Your task to perform on an android device: turn on location history Image 0: 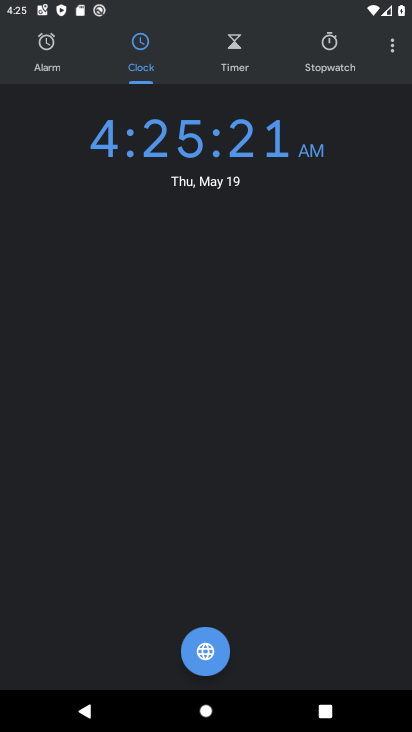
Step 0: press home button
Your task to perform on an android device: turn on location history Image 1: 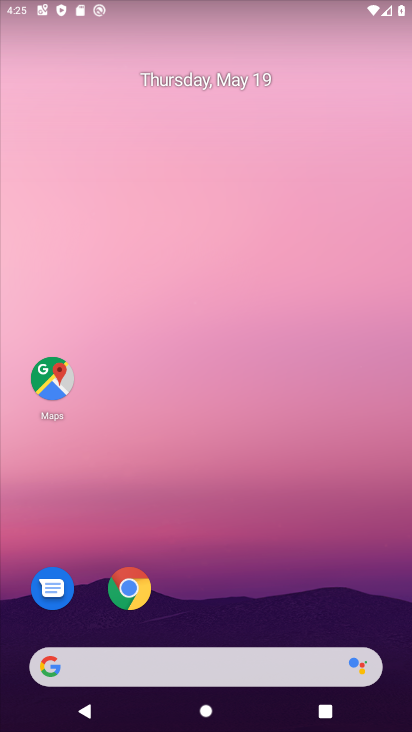
Step 1: drag from (192, 622) to (256, 88)
Your task to perform on an android device: turn on location history Image 2: 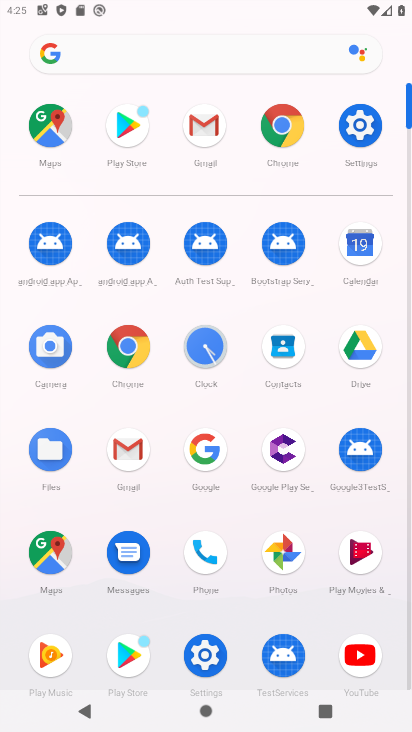
Step 2: click (221, 656)
Your task to perform on an android device: turn on location history Image 3: 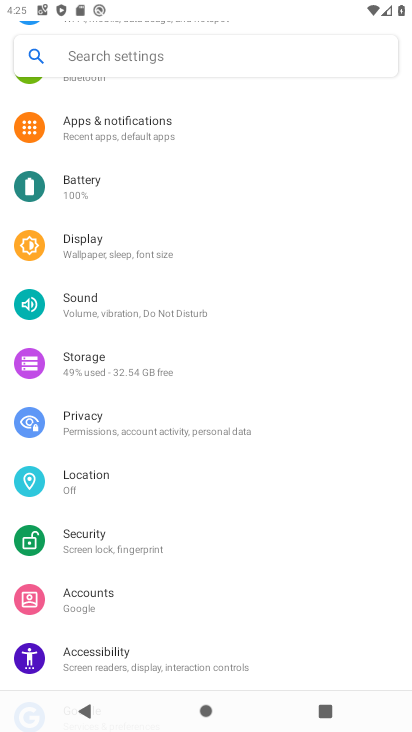
Step 3: click (115, 504)
Your task to perform on an android device: turn on location history Image 4: 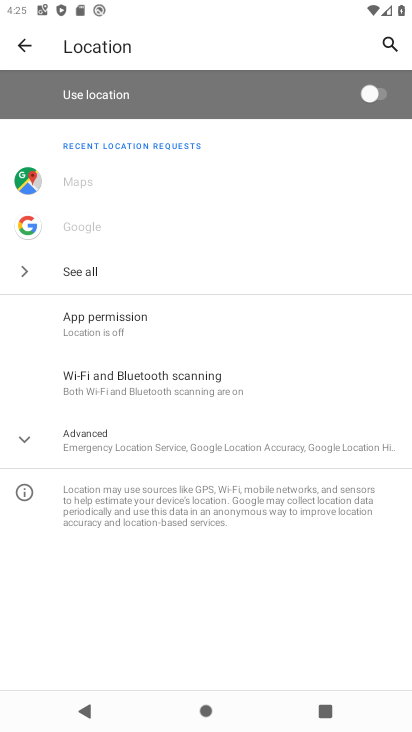
Step 4: click (123, 445)
Your task to perform on an android device: turn on location history Image 5: 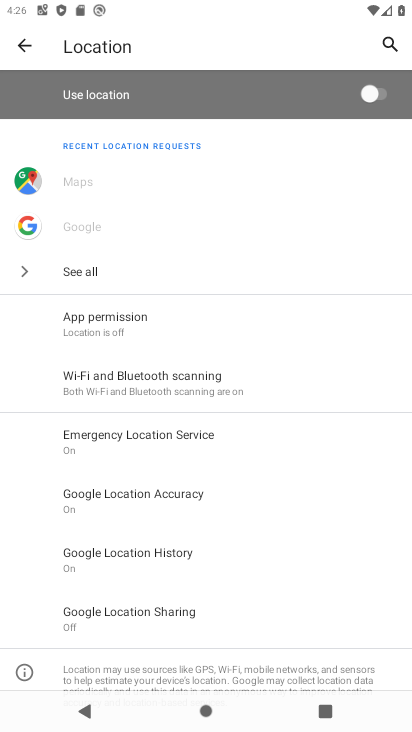
Step 5: click (160, 558)
Your task to perform on an android device: turn on location history Image 6: 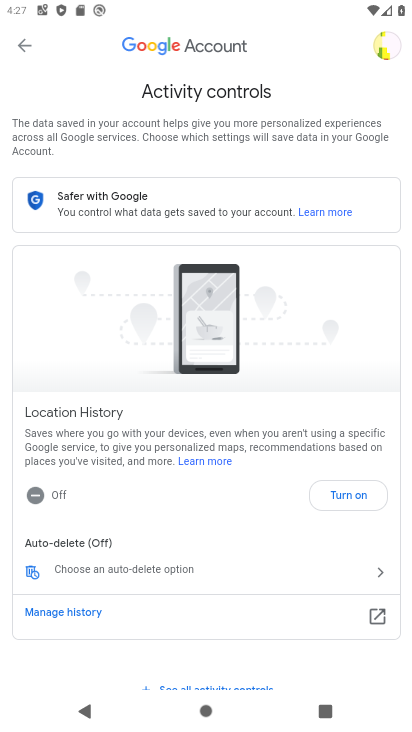
Step 6: drag from (200, 647) to (238, 544)
Your task to perform on an android device: turn on location history Image 7: 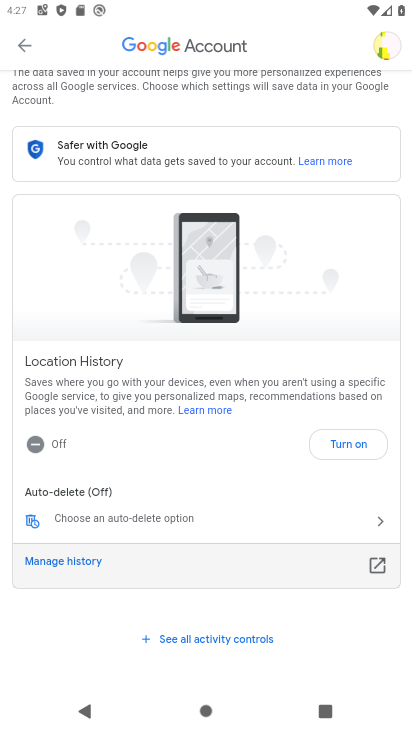
Step 7: click (351, 455)
Your task to perform on an android device: turn on location history Image 8: 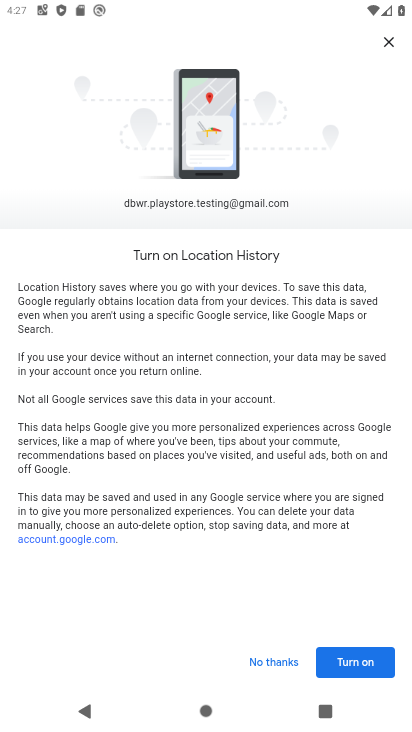
Step 8: click (376, 665)
Your task to perform on an android device: turn on location history Image 9: 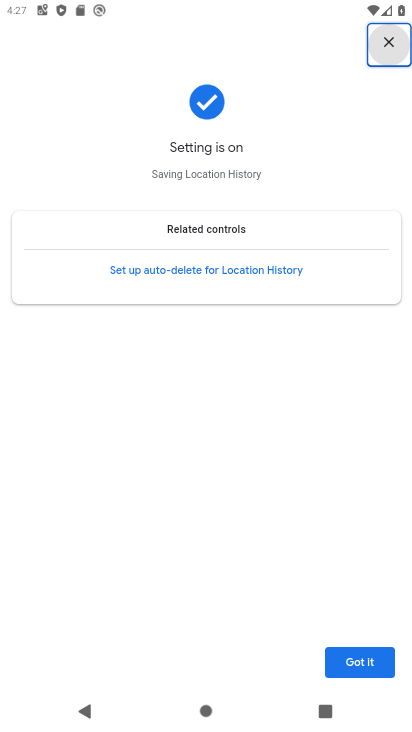
Step 9: click (377, 660)
Your task to perform on an android device: turn on location history Image 10: 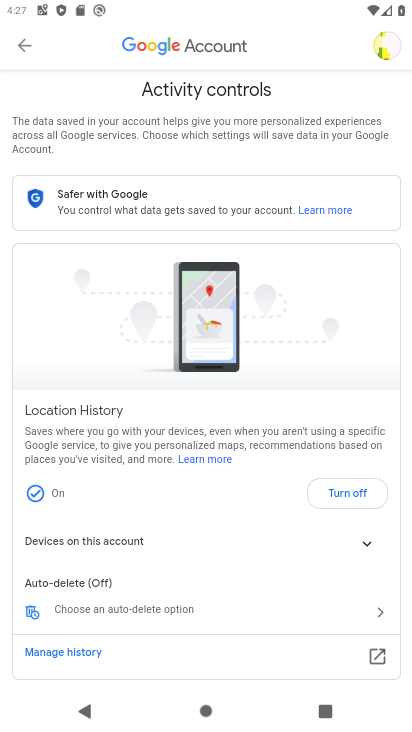
Step 10: task complete